Your task to perform on an android device: clear history in the chrome app Image 0: 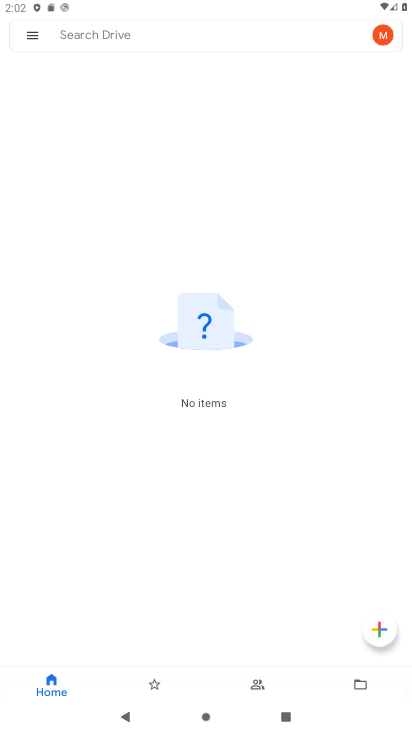
Step 0: press home button
Your task to perform on an android device: clear history in the chrome app Image 1: 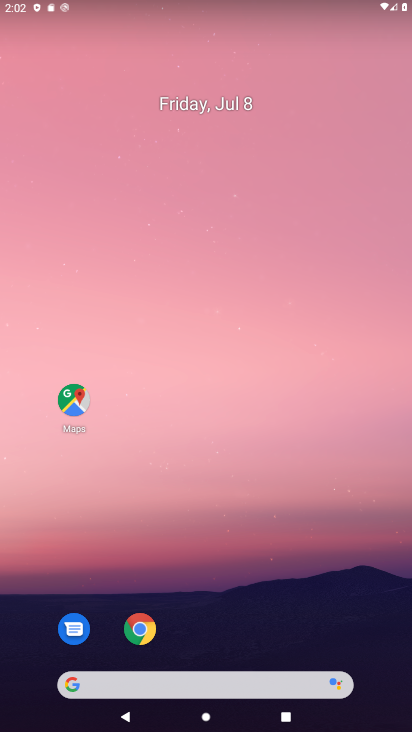
Step 1: click (132, 628)
Your task to perform on an android device: clear history in the chrome app Image 2: 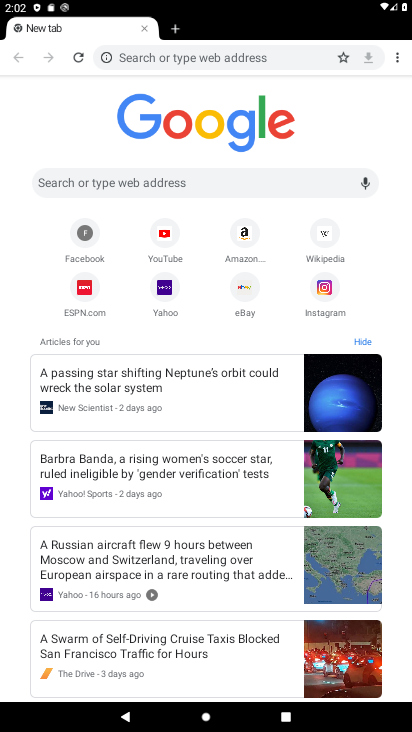
Step 2: click (394, 56)
Your task to perform on an android device: clear history in the chrome app Image 3: 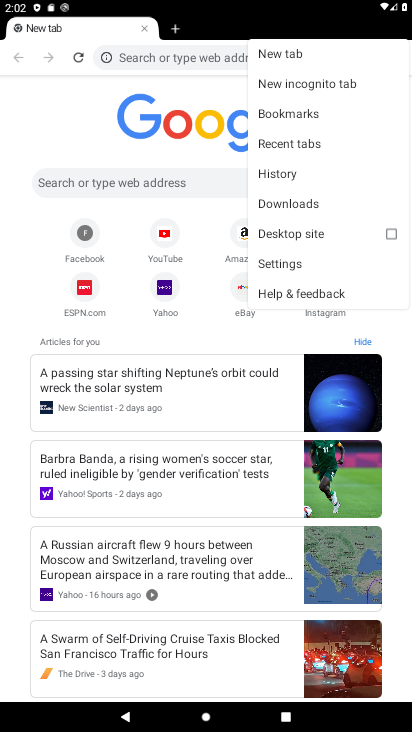
Step 3: click (284, 168)
Your task to perform on an android device: clear history in the chrome app Image 4: 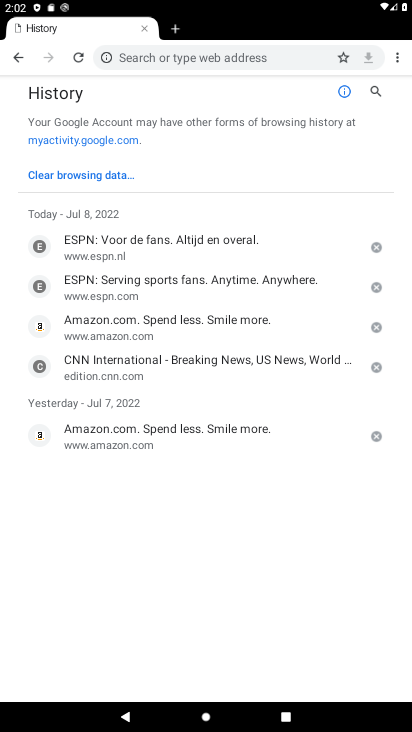
Step 4: click (72, 171)
Your task to perform on an android device: clear history in the chrome app Image 5: 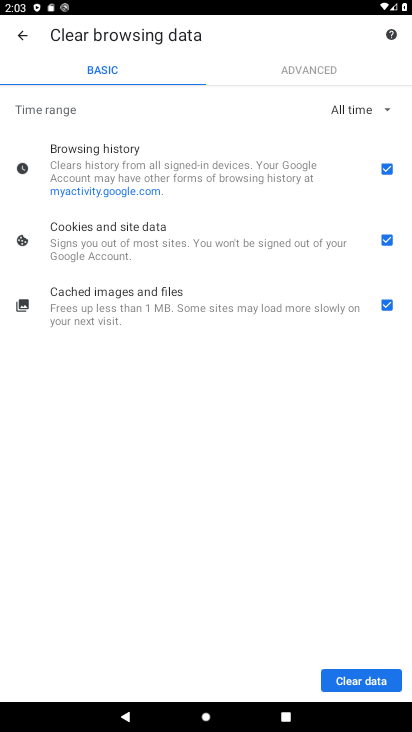
Step 5: click (337, 680)
Your task to perform on an android device: clear history in the chrome app Image 6: 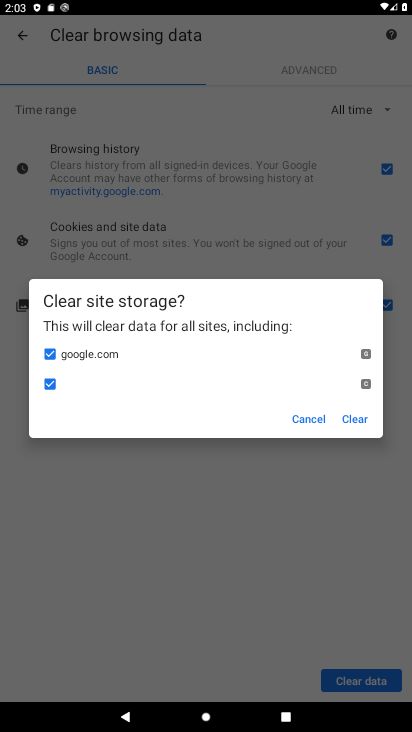
Step 6: click (349, 417)
Your task to perform on an android device: clear history in the chrome app Image 7: 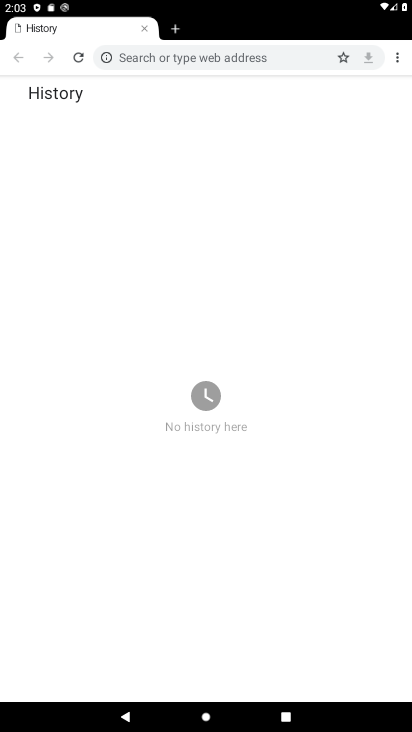
Step 7: task complete